Your task to perform on an android device: Open Chrome and go to settings Image 0: 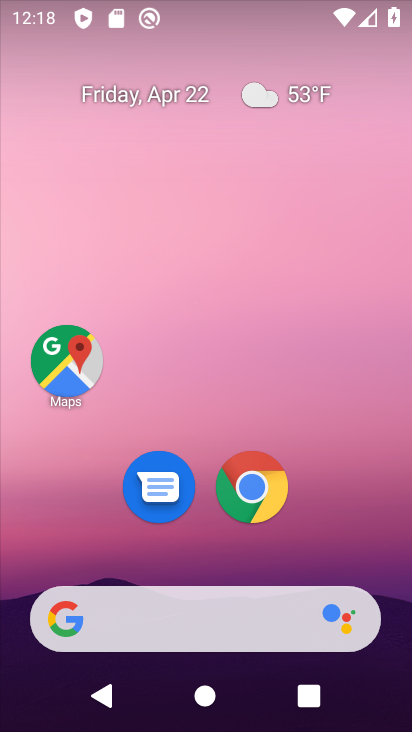
Step 0: click (251, 488)
Your task to perform on an android device: Open Chrome and go to settings Image 1: 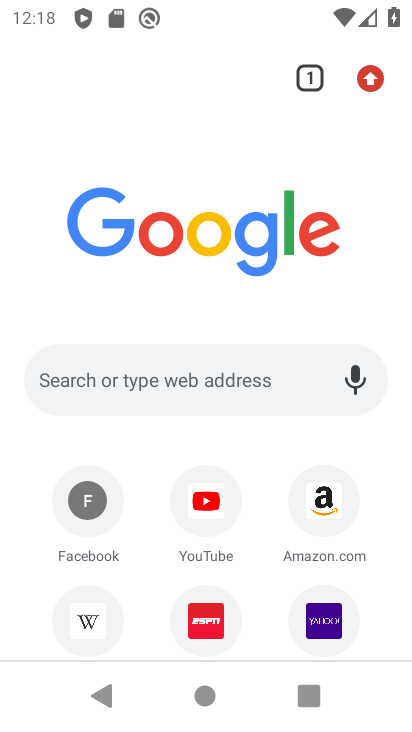
Step 1: click (367, 83)
Your task to perform on an android device: Open Chrome and go to settings Image 2: 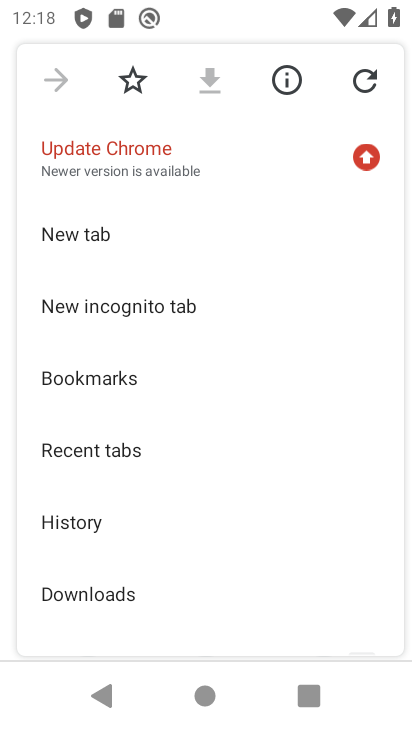
Step 2: drag from (98, 551) to (128, 100)
Your task to perform on an android device: Open Chrome and go to settings Image 3: 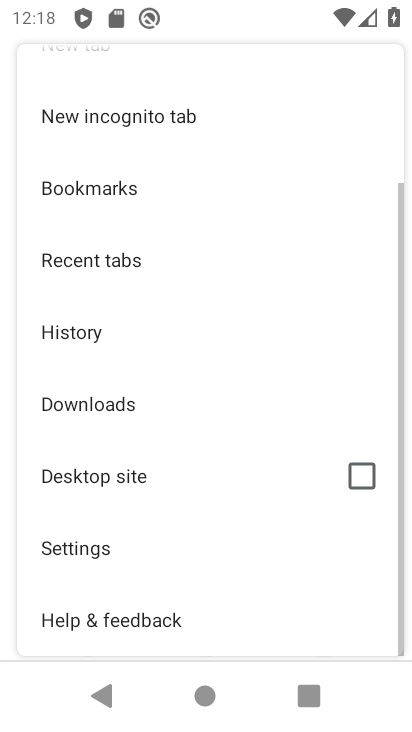
Step 3: click (66, 558)
Your task to perform on an android device: Open Chrome and go to settings Image 4: 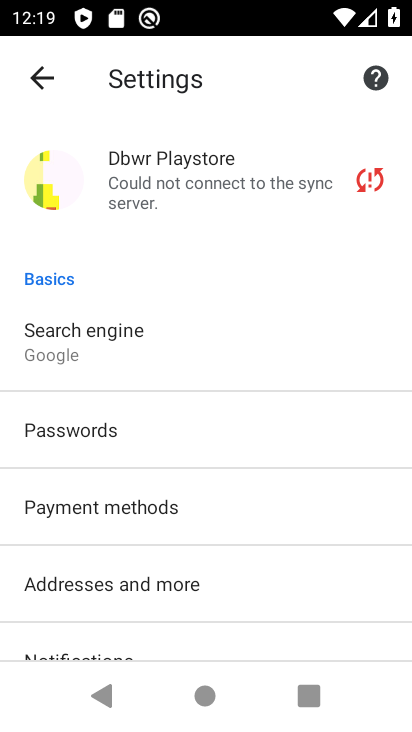
Step 4: task complete